Your task to perform on an android device: empty trash in google photos Image 0: 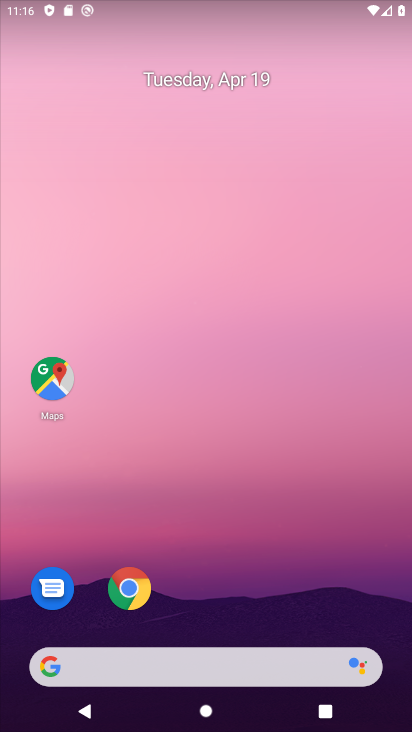
Step 0: drag from (205, 590) to (261, 28)
Your task to perform on an android device: empty trash in google photos Image 1: 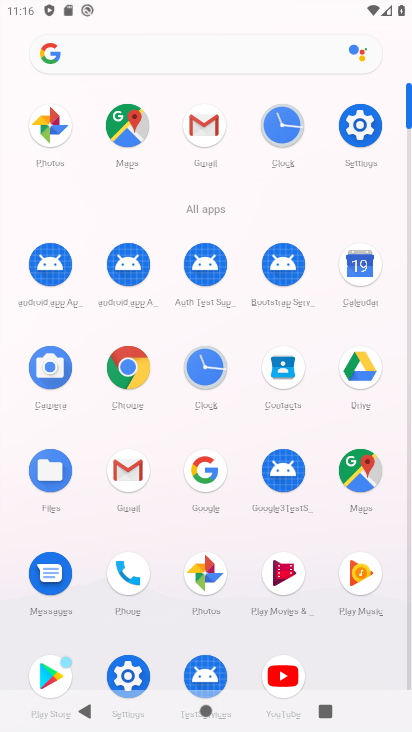
Step 1: click (204, 567)
Your task to perform on an android device: empty trash in google photos Image 2: 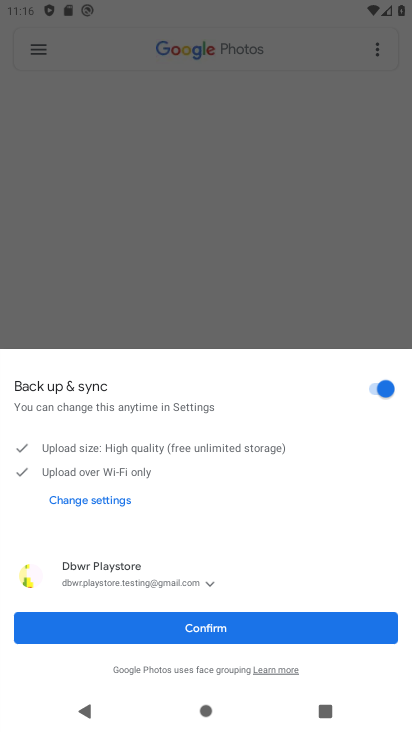
Step 2: click (210, 626)
Your task to perform on an android device: empty trash in google photos Image 3: 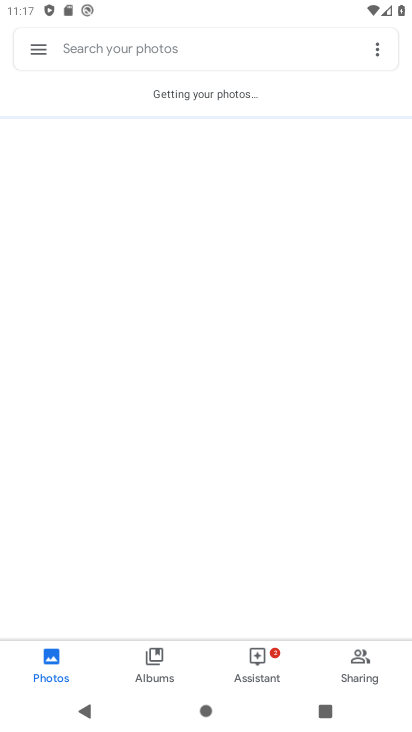
Step 3: click (38, 48)
Your task to perform on an android device: empty trash in google photos Image 4: 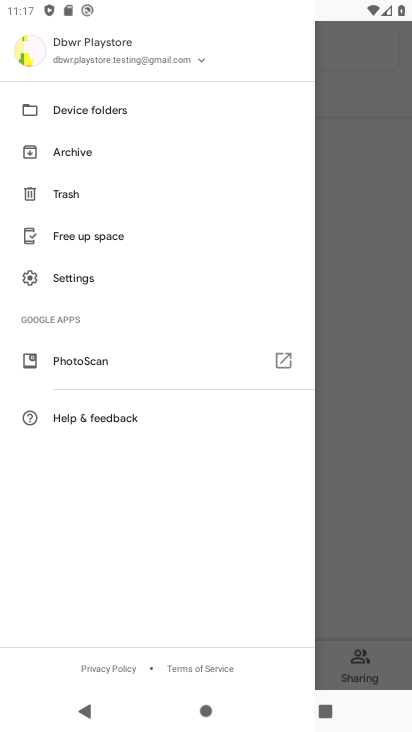
Step 4: click (62, 186)
Your task to perform on an android device: empty trash in google photos Image 5: 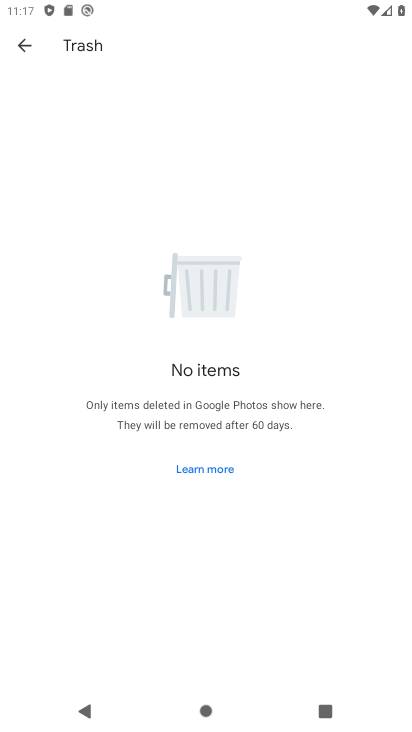
Step 5: task complete